Your task to perform on an android device: check data usage Image 0: 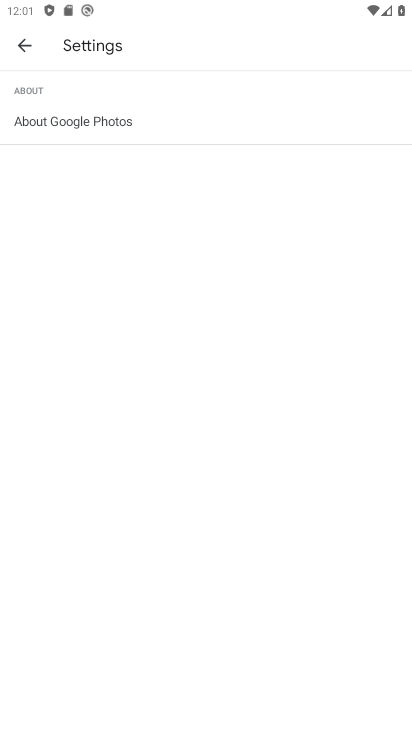
Step 0: press home button
Your task to perform on an android device: check data usage Image 1: 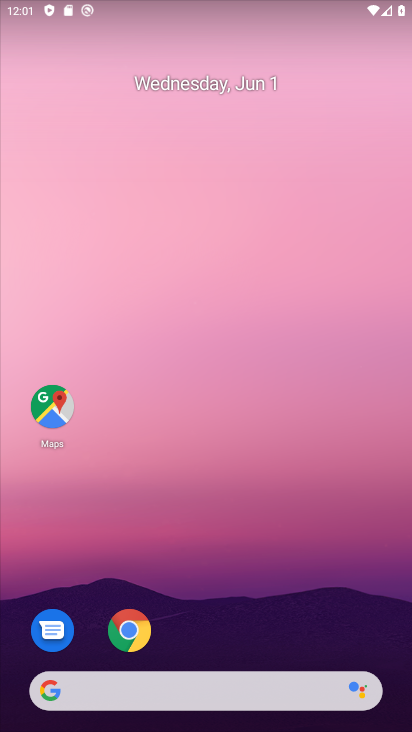
Step 1: drag from (379, 611) to (365, 191)
Your task to perform on an android device: check data usage Image 2: 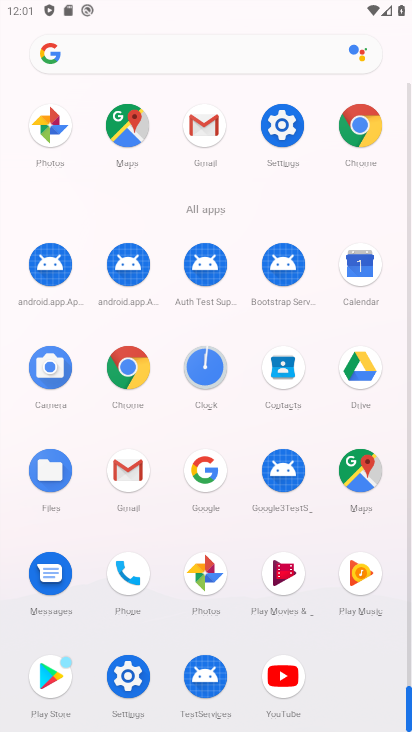
Step 2: click (297, 142)
Your task to perform on an android device: check data usage Image 3: 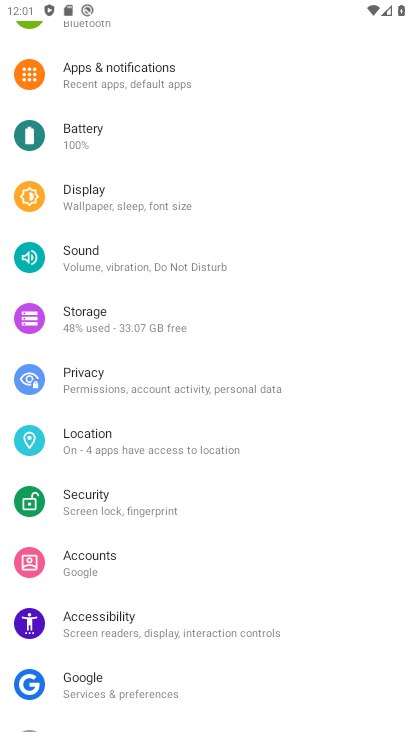
Step 3: drag from (312, 242) to (318, 326)
Your task to perform on an android device: check data usage Image 4: 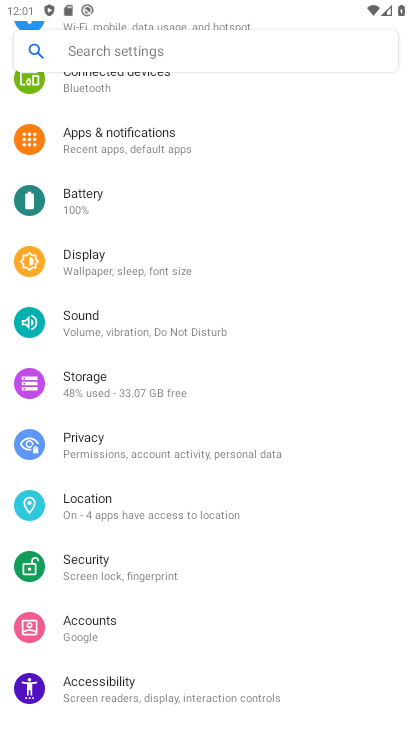
Step 4: drag from (306, 223) to (304, 330)
Your task to perform on an android device: check data usage Image 5: 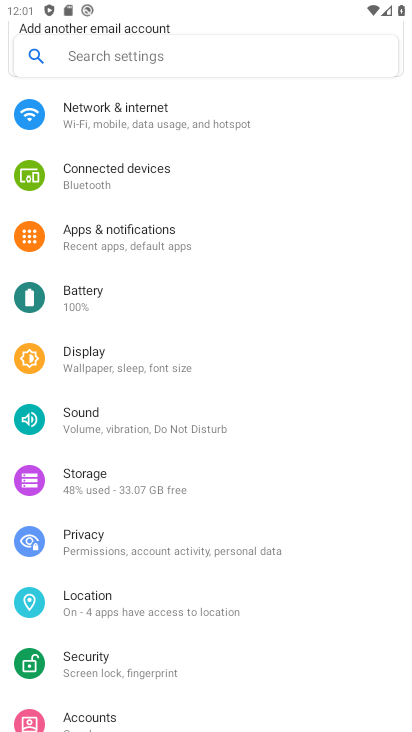
Step 5: drag from (299, 182) to (318, 393)
Your task to perform on an android device: check data usage Image 6: 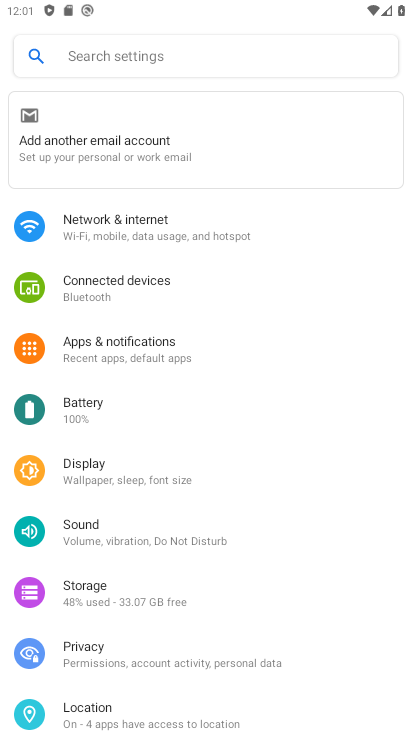
Step 6: click (215, 236)
Your task to perform on an android device: check data usage Image 7: 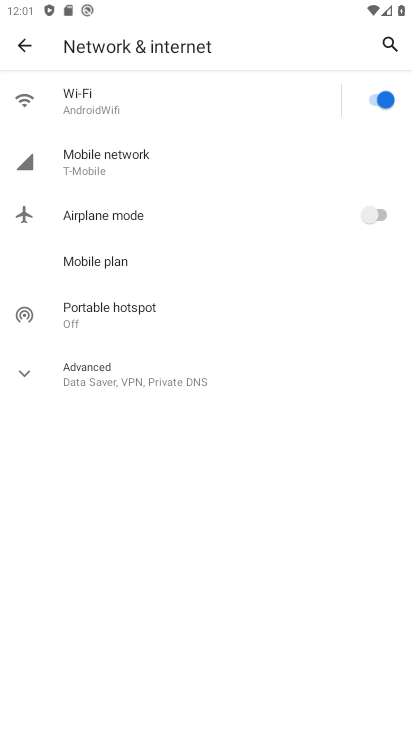
Step 7: click (133, 153)
Your task to perform on an android device: check data usage Image 8: 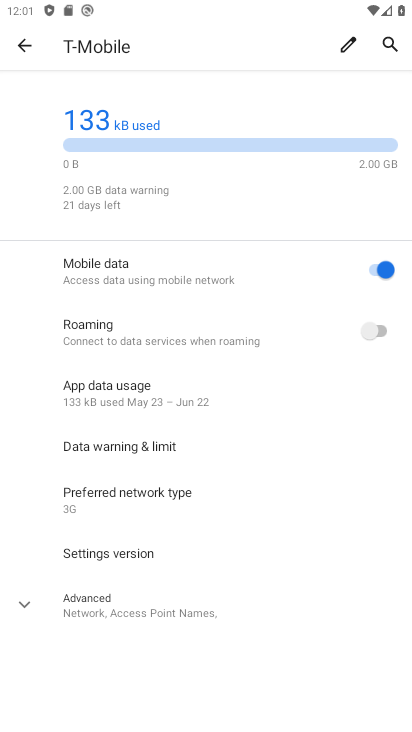
Step 8: click (184, 402)
Your task to perform on an android device: check data usage Image 9: 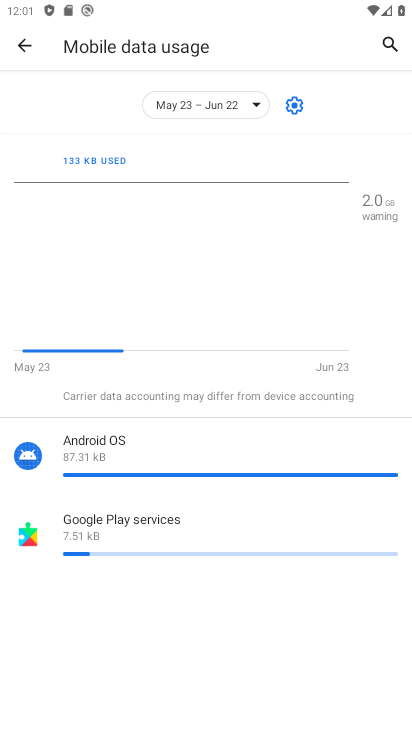
Step 9: task complete